Your task to perform on an android device: set default search engine in the chrome app Image 0: 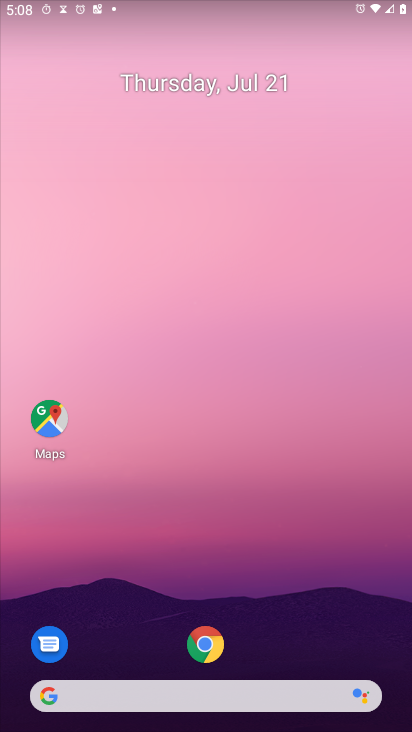
Step 0: press home button
Your task to perform on an android device: set default search engine in the chrome app Image 1: 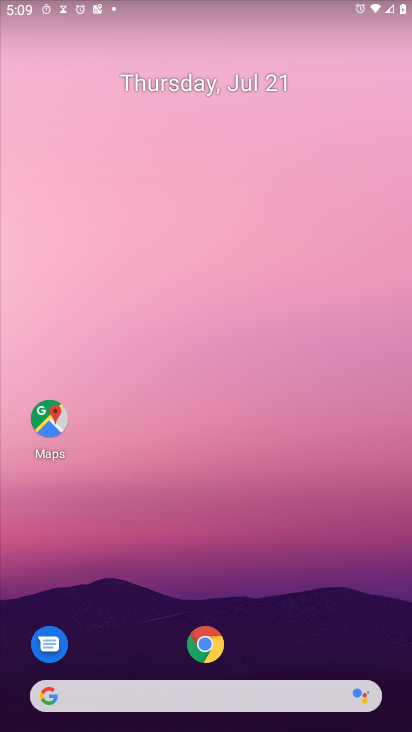
Step 1: click (210, 640)
Your task to perform on an android device: set default search engine in the chrome app Image 2: 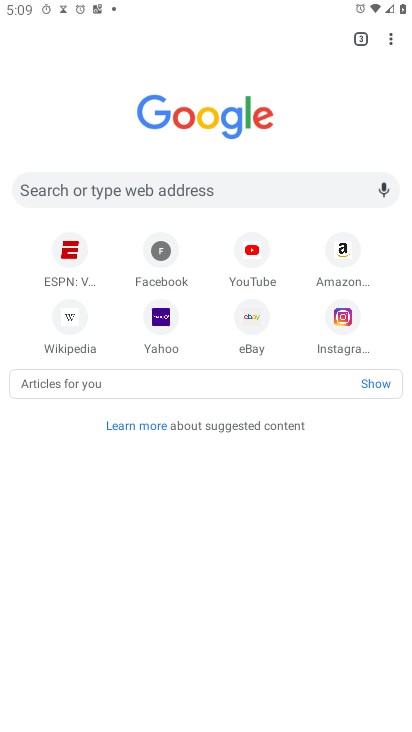
Step 2: click (388, 36)
Your task to perform on an android device: set default search engine in the chrome app Image 3: 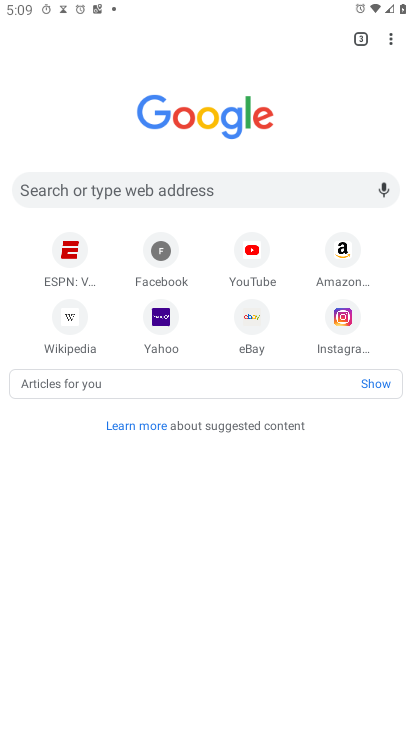
Step 3: click (387, 36)
Your task to perform on an android device: set default search engine in the chrome app Image 4: 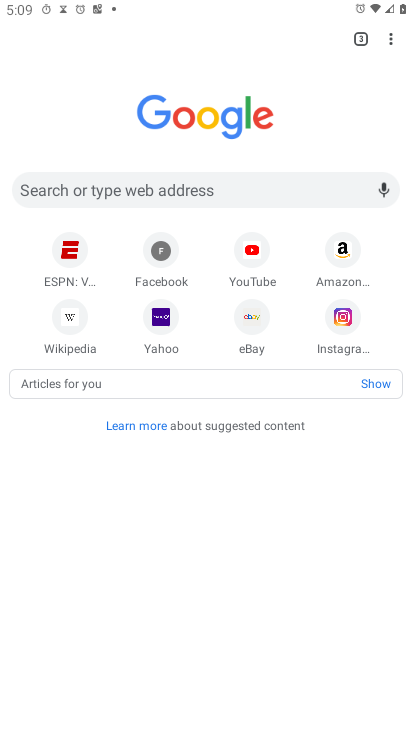
Step 4: click (395, 42)
Your task to perform on an android device: set default search engine in the chrome app Image 5: 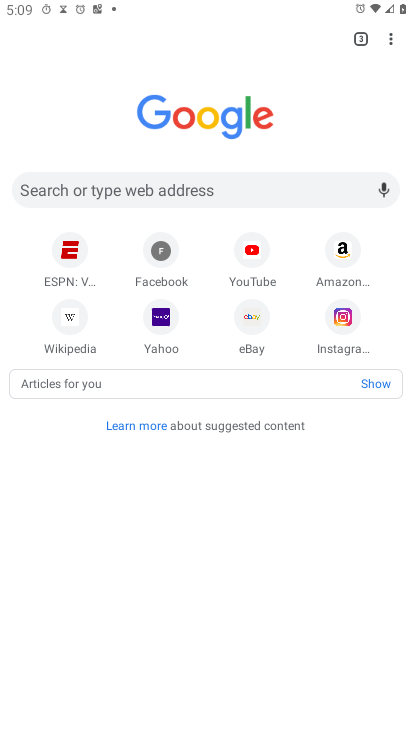
Step 5: drag from (394, 27) to (259, 381)
Your task to perform on an android device: set default search engine in the chrome app Image 6: 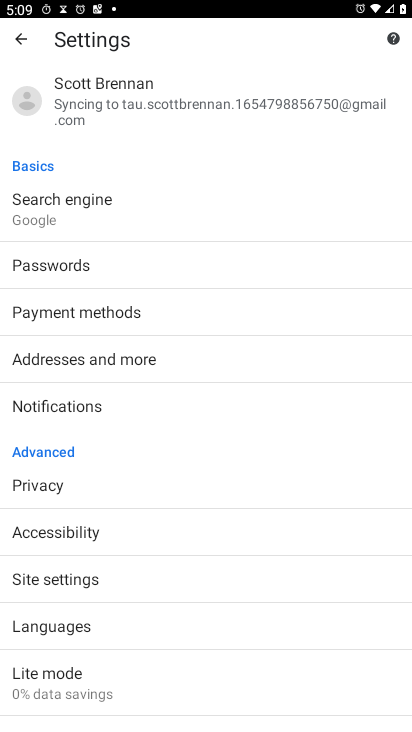
Step 6: click (89, 205)
Your task to perform on an android device: set default search engine in the chrome app Image 7: 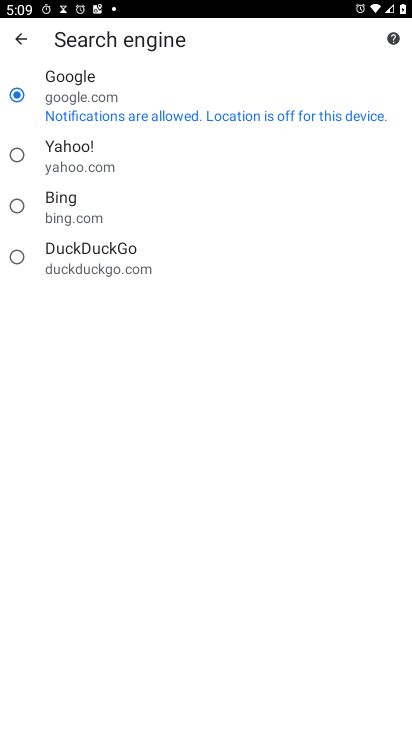
Step 7: task complete